Your task to perform on an android device: delete the emails in spam in the gmail app Image 0: 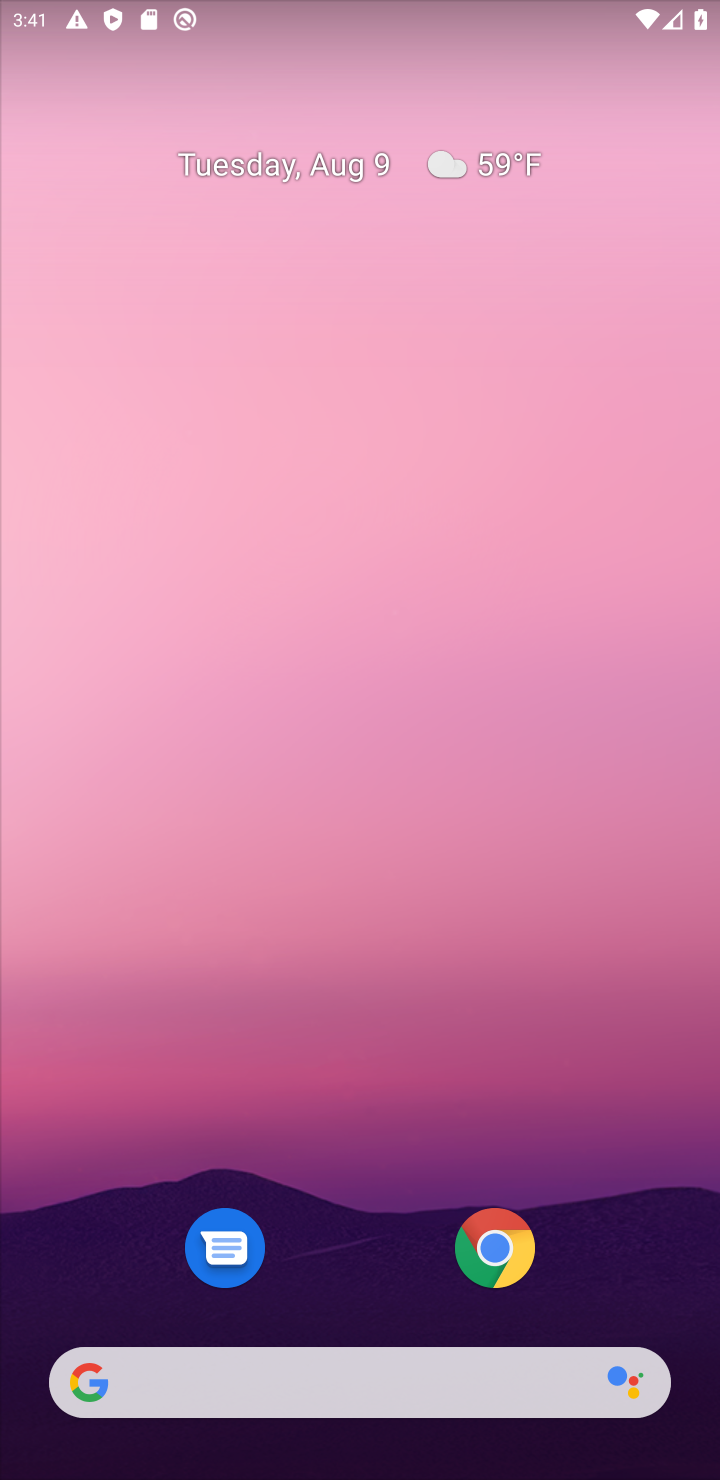
Step 0: drag from (310, 1276) to (360, 2)
Your task to perform on an android device: delete the emails in spam in the gmail app Image 1: 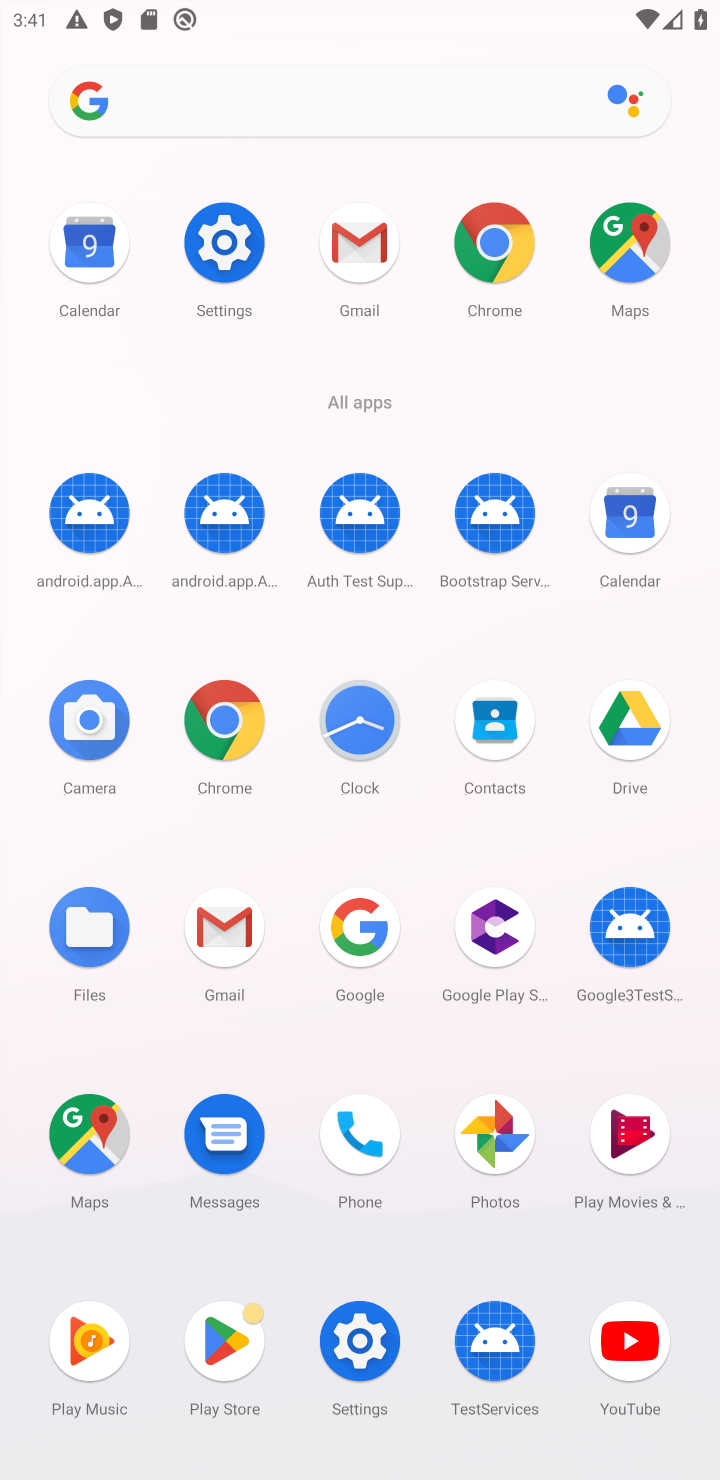
Step 1: click (231, 940)
Your task to perform on an android device: delete the emails in spam in the gmail app Image 2: 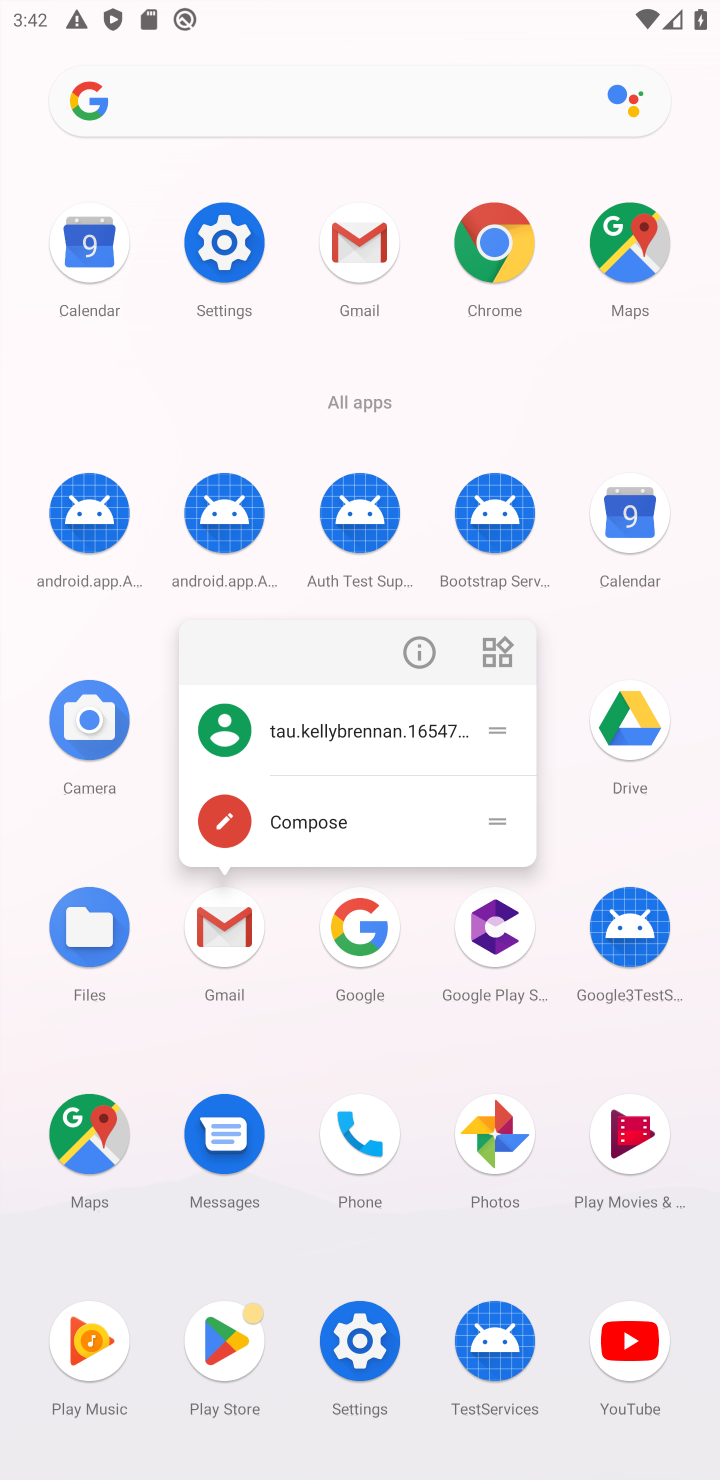
Step 2: click (229, 940)
Your task to perform on an android device: delete the emails in spam in the gmail app Image 3: 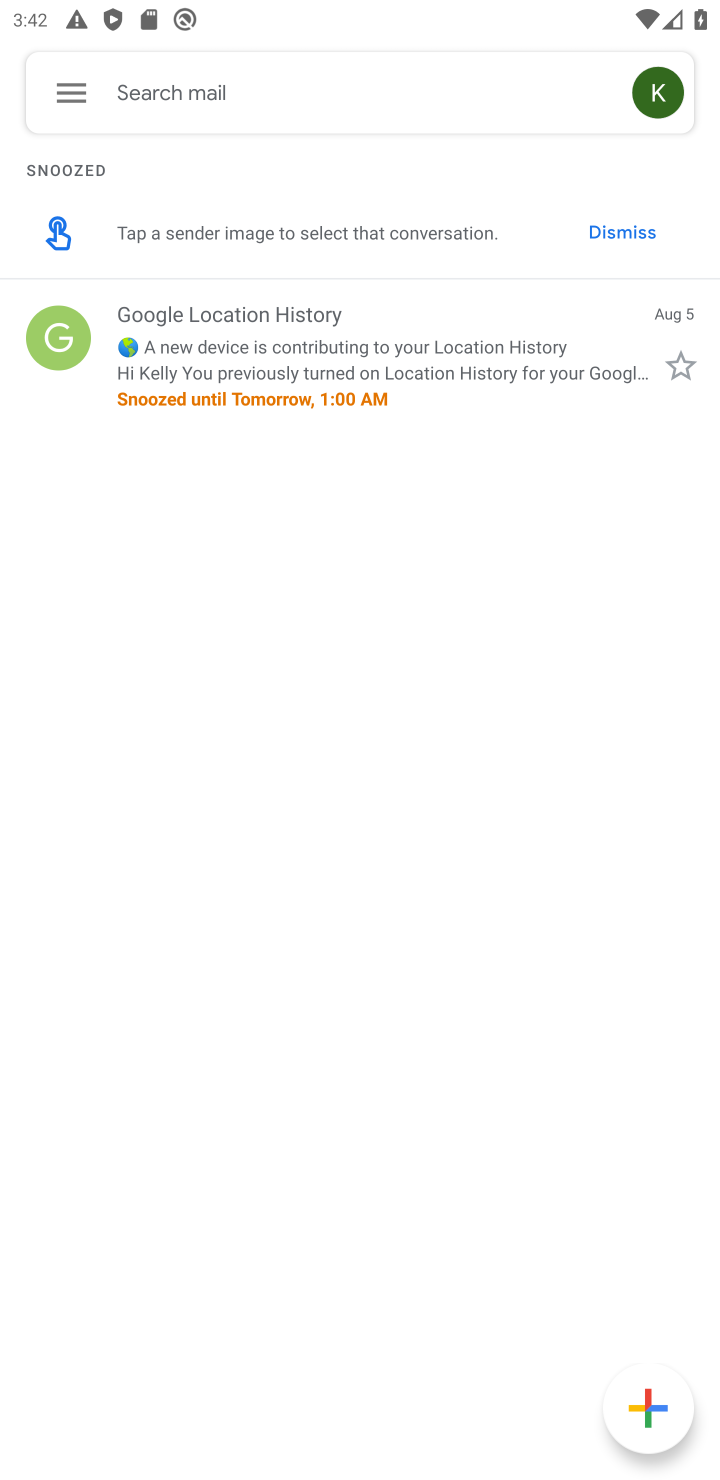
Step 3: click (59, 81)
Your task to perform on an android device: delete the emails in spam in the gmail app Image 4: 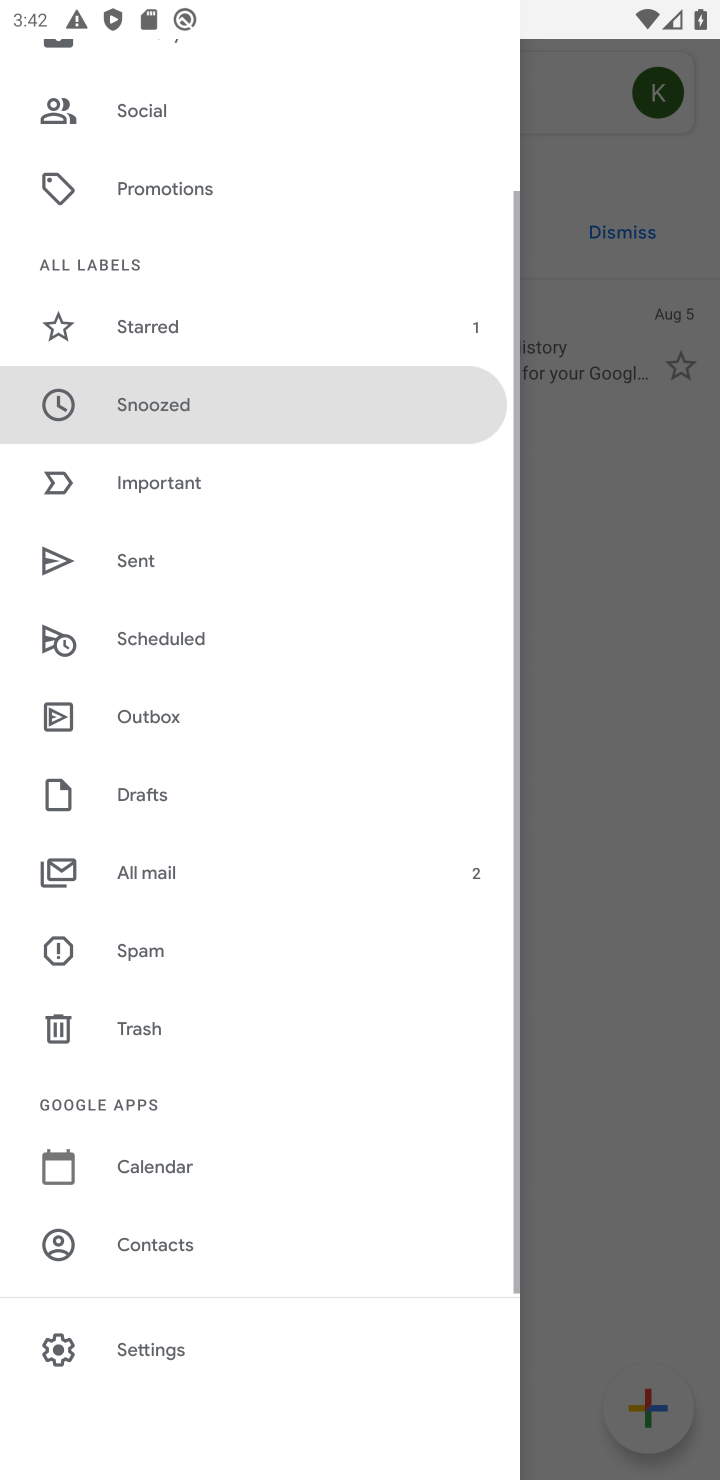
Step 4: click (93, 961)
Your task to perform on an android device: delete the emails in spam in the gmail app Image 5: 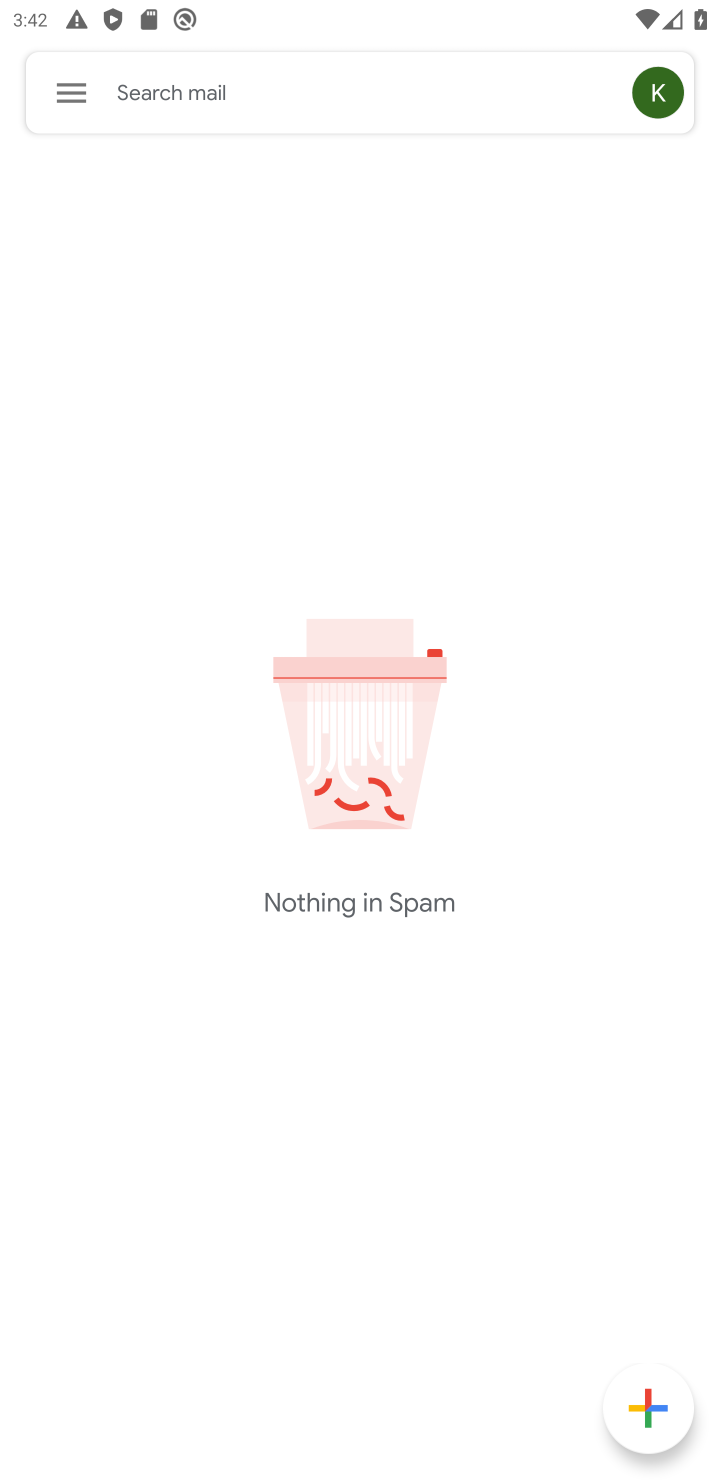
Step 5: task complete